Your task to perform on an android device: Open settings Image 0: 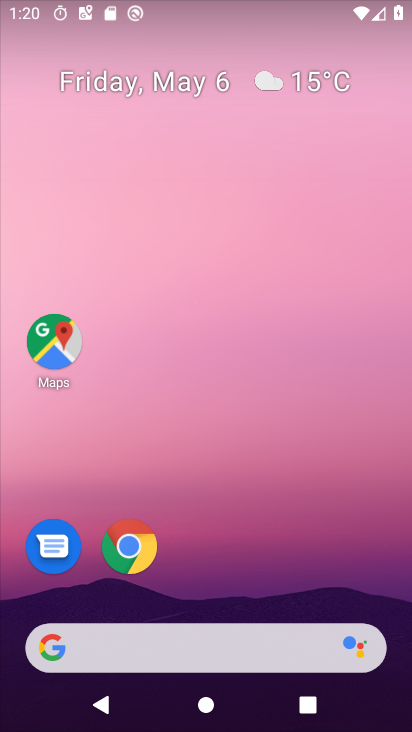
Step 0: drag from (229, 371) to (225, 26)
Your task to perform on an android device: Open settings Image 1: 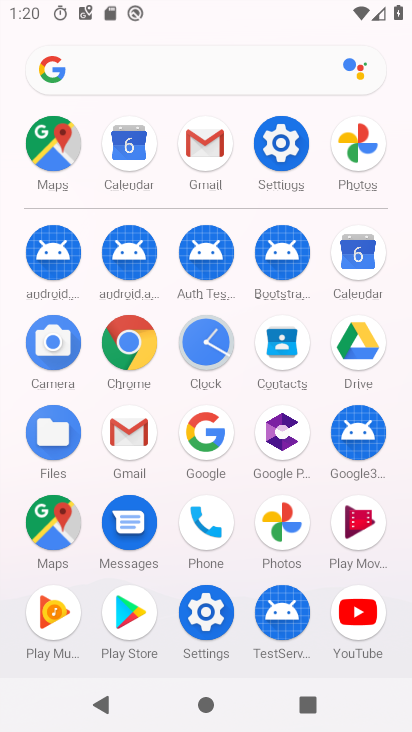
Step 1: click (281, 155)
Your task to perform on an android device: Open settings Image 2: 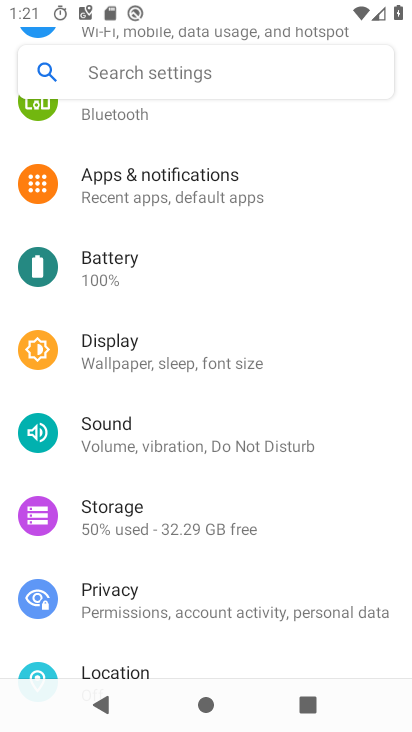
Step 2: task complete